Your task to perform on an android device: Open location settings Image 0: 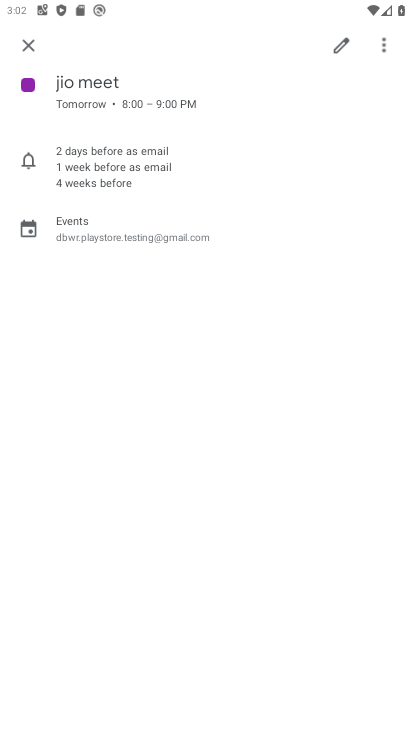
Step 0: press back button
Your task to perform on an android device: Open location settings Image 1: 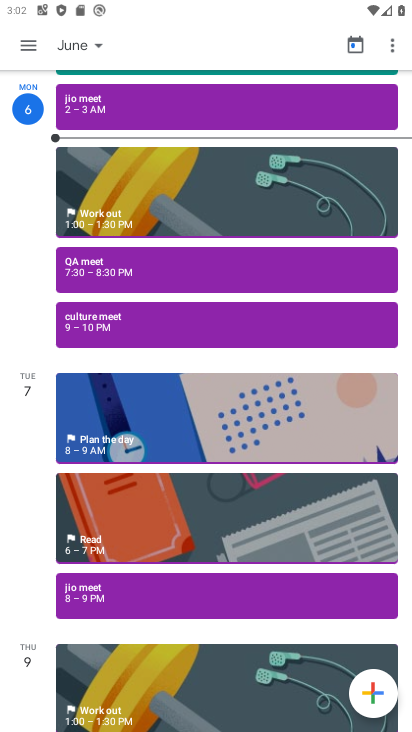
Step 1: press back button
Your task to perform on an android device: Open location settings Image 2: 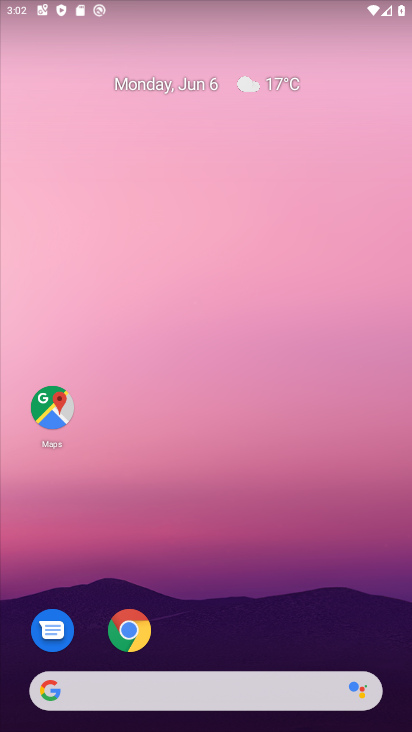
Step 2: drag from (168, 636) to (244, 94)
Your task to perform on an android device: Open location settings Image 3: 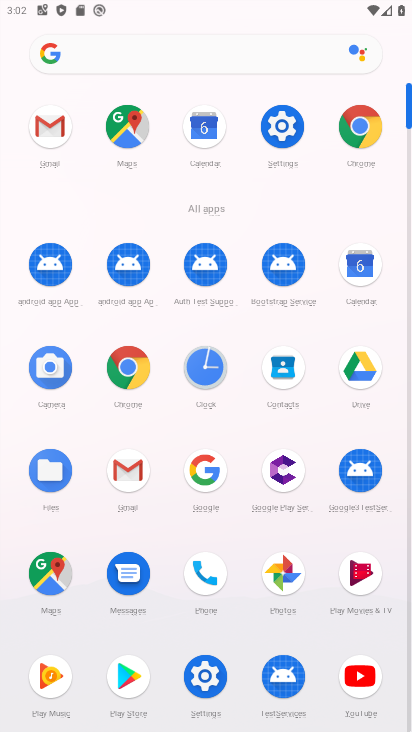
Step 3: click (283, 121)
Your task to perform on an android device: Open location settings Image 4: 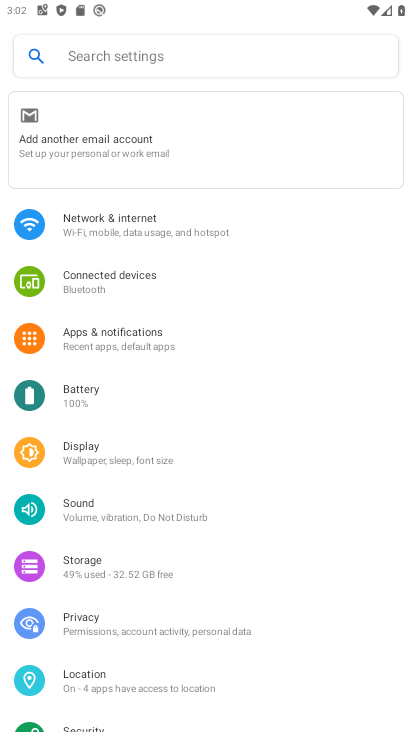
Step 4: click (100, 686)
Your task to perform on an android device: Open location settings Image 5: 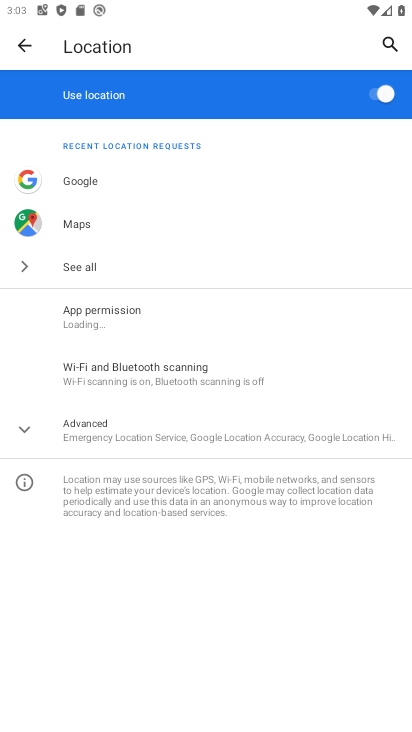
Step 5: task complete